Your task to perform on an android device: Turn on the flashlight Image 0: 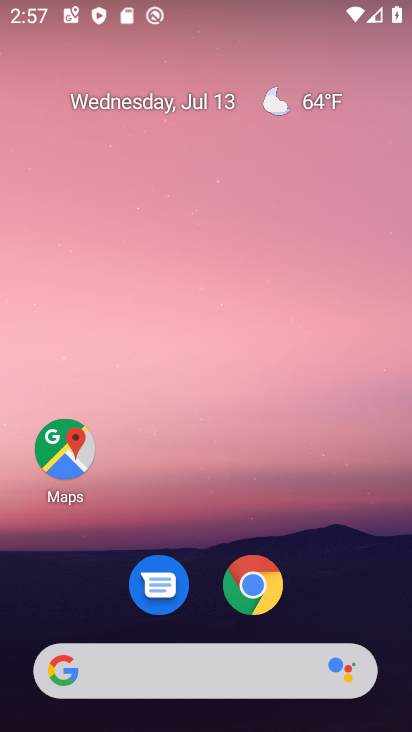
Step 0: press home button
Your task to perform on an android device: Turn on the flashlight Image 1: 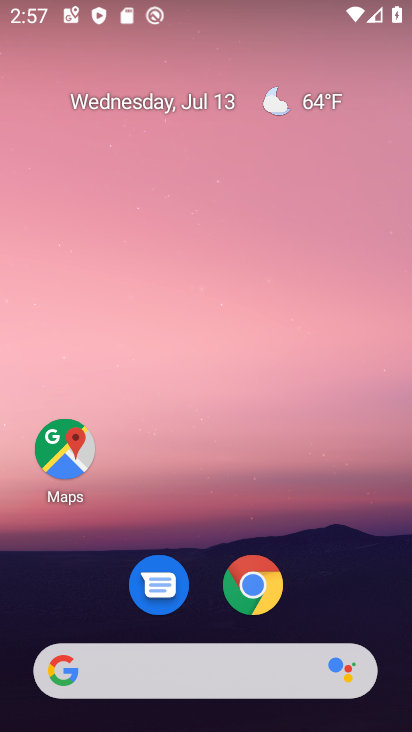
Step 1: task complete